Your task to perform on an android device: find which apps use the phone's location Image 0: 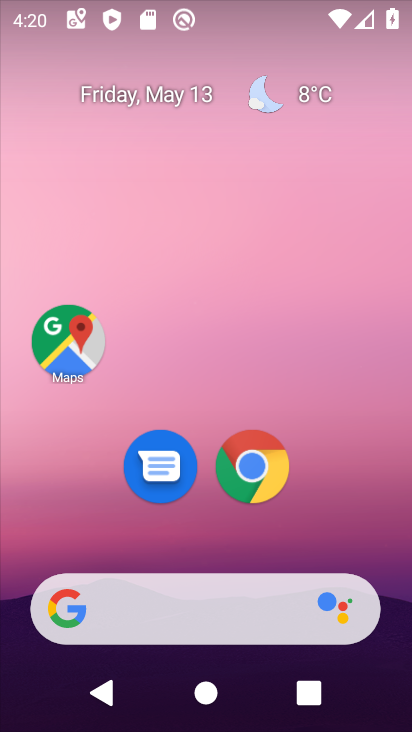
Step 0: drag from (387, 629) to (337, 63)
Your task to perform on an android device: find which apps use the phone's location Image 1: 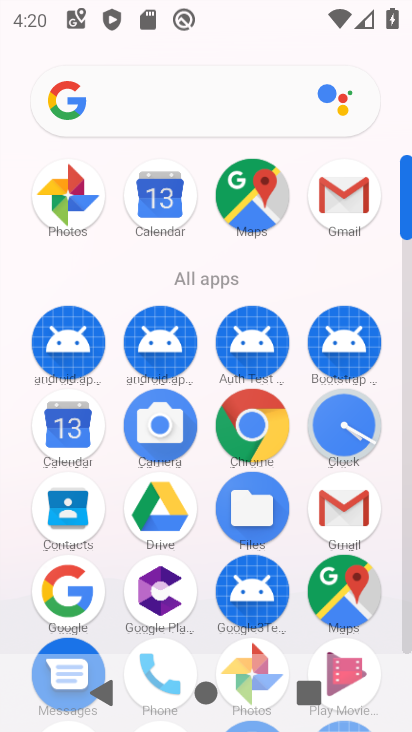
Step 1: click (405, 634)
Your task to perform on an android device: find which apps use the phone's location Image 2: 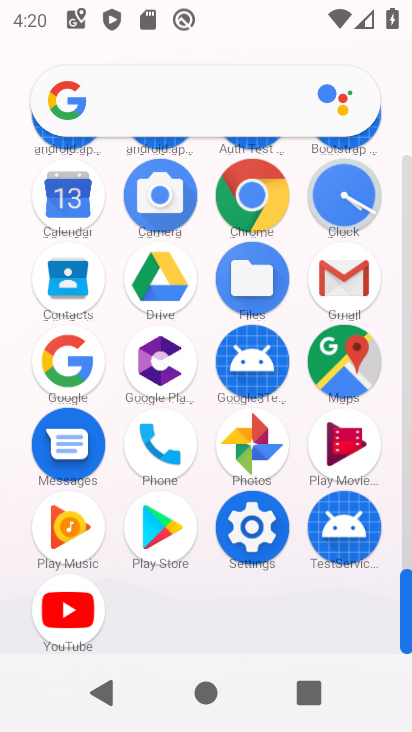
Step 2: click (253, 523)
Your task to perform on an android device: find which apps use the phone's location Image 3: 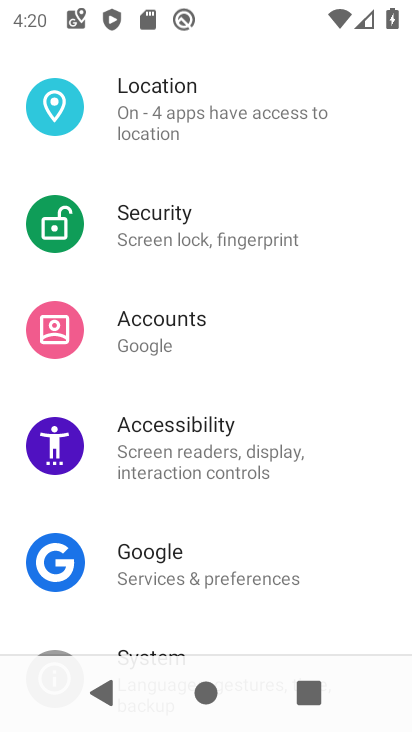
Step 3: drag from (306, 224) to (298, 485)
Your task to perform on an android device: find which apps use the phone's location Image 4: 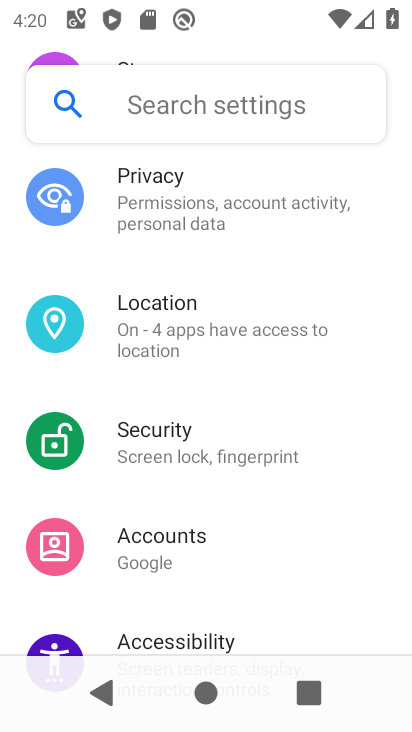
Step 4: click (152, 326)
Your task to perform on an android device: find which apps use the phone's location Image 5: 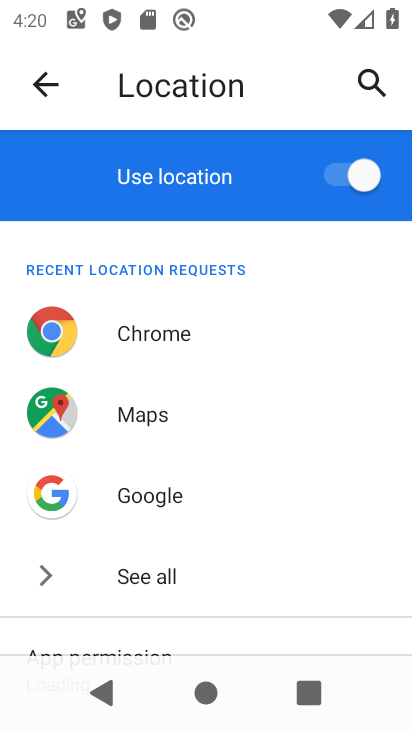
Step 5: drag from (277, 631) to (249, 224)
Your task to perform on an android device: find which apps use the phone's location Image 6: 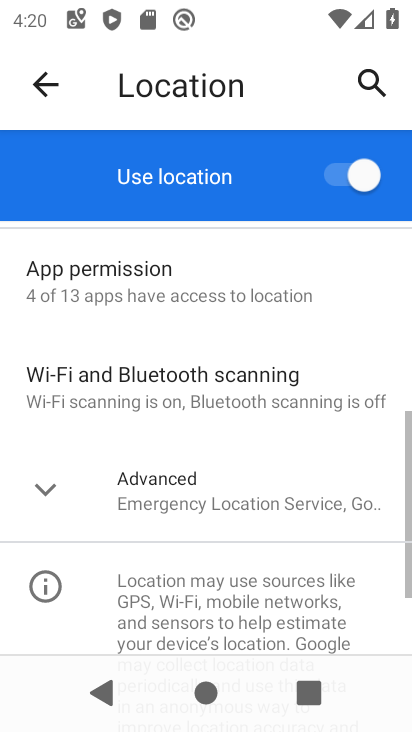
Step 6: click (41, 284)
Your task to perform on an android device: find which apps use the phone's location Image 7: 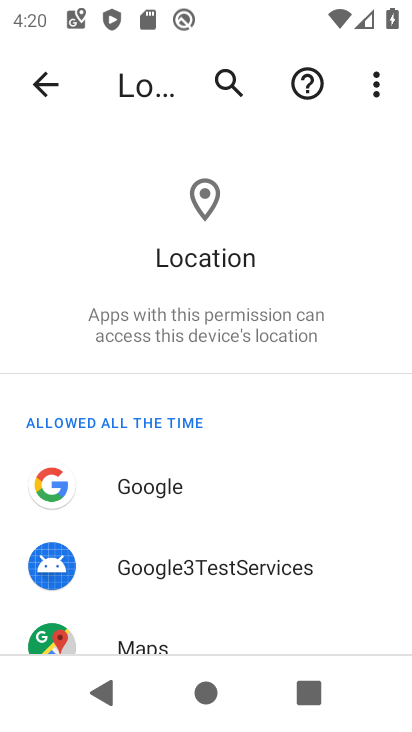
Step 7: drag from (272, 614) to (254, 137)
Your task to perform on an android device: find which apps use the phone's location Image 8: 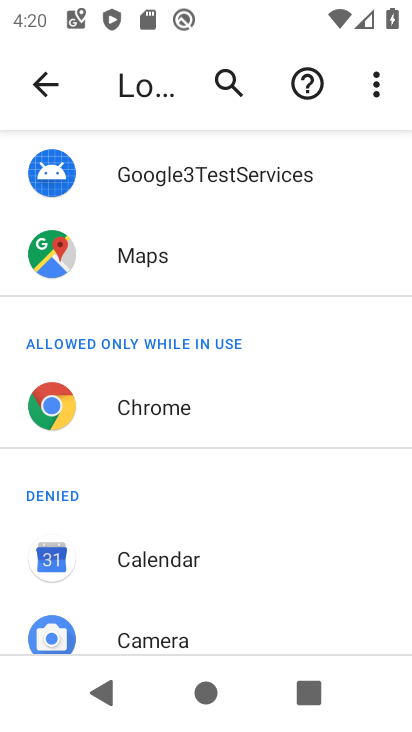
Step 8: drag from (197, 578) to (205, 228)
Your task to perform on an android device: find which apps use the phone's location Image 9: 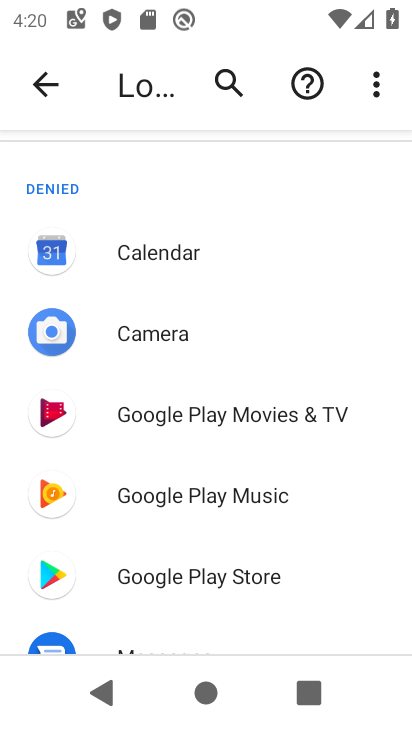
Step 9: drag from (209, 635) to (219, 123)
Your task to perform on an android device: find which apps use the phone's location Image 10: 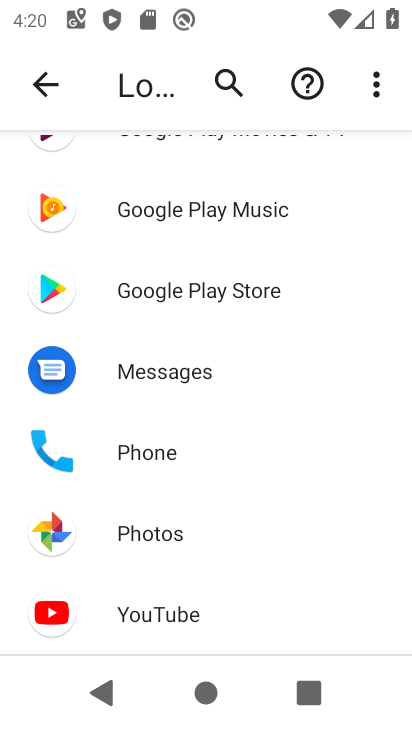
Step 10: click (141, 539)
Your task to perform on an android device: find which apps use the phone's location Image 11: 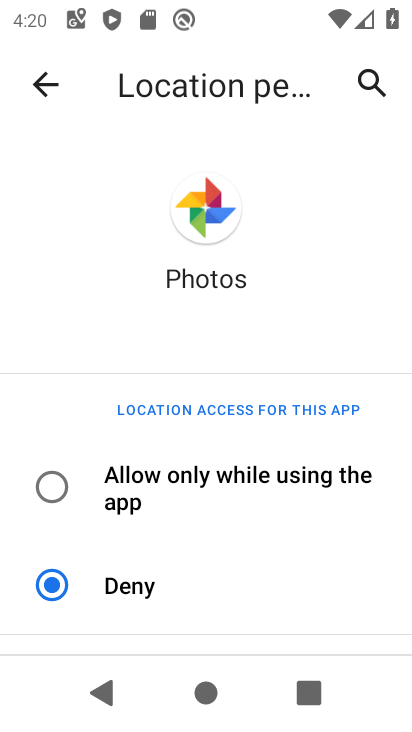
Step 11: task complete